Your task to perform on an android device: Search for Mexican restaurants on Maps Image 0: 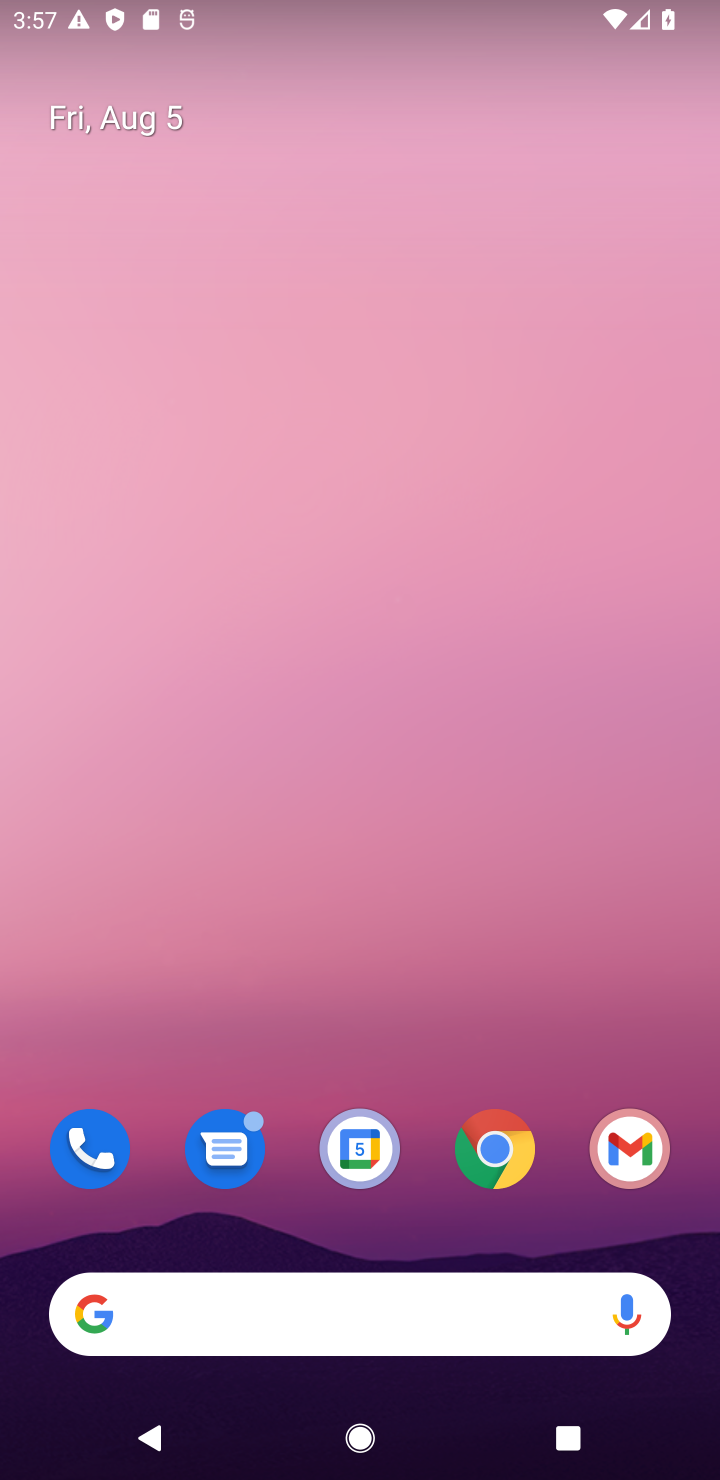
Step 0: drag from (193, 1009) to (419, 128)
Your task to perform on an android device: Search for Mexican restaurants on Maps Image 1: 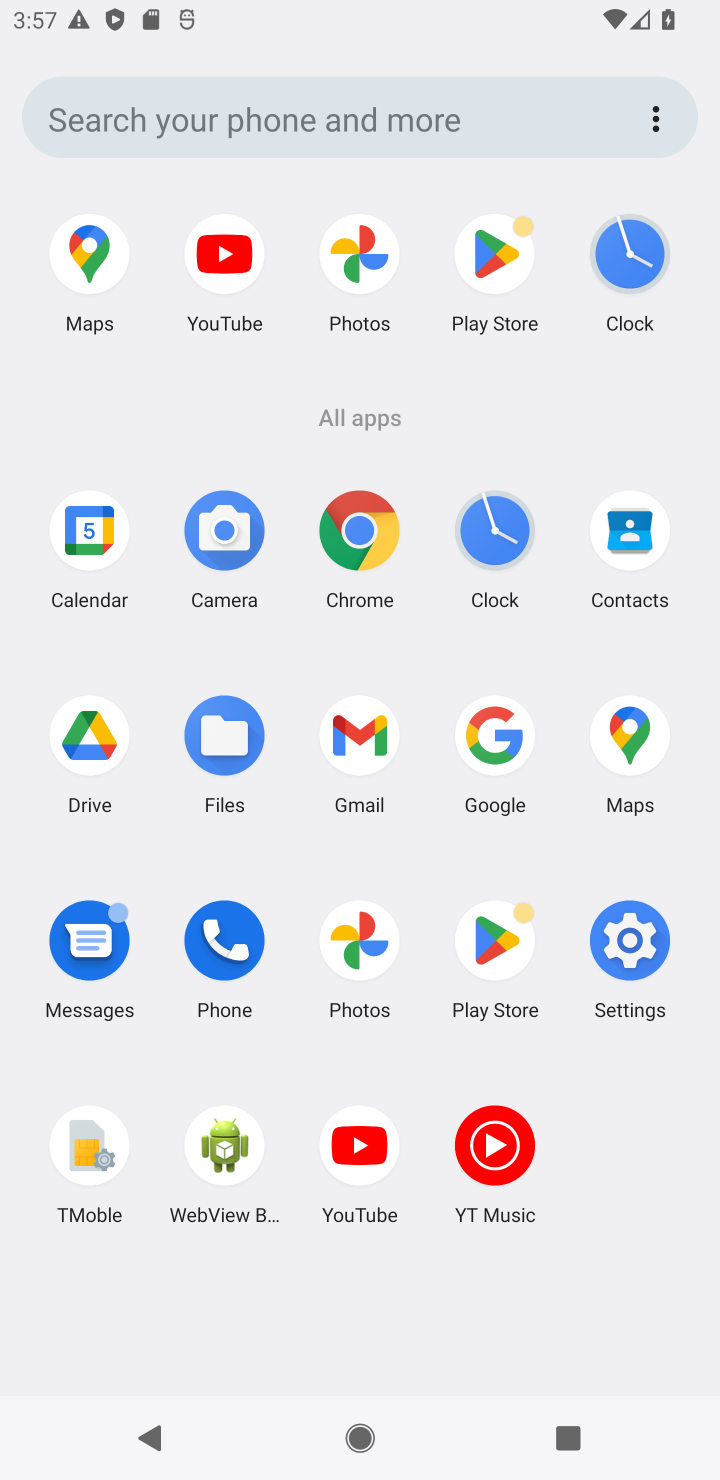
Step 1: click (623, 762)
Your task to perform on an android device: Search for Mexican restaurants on Maps Image 2: 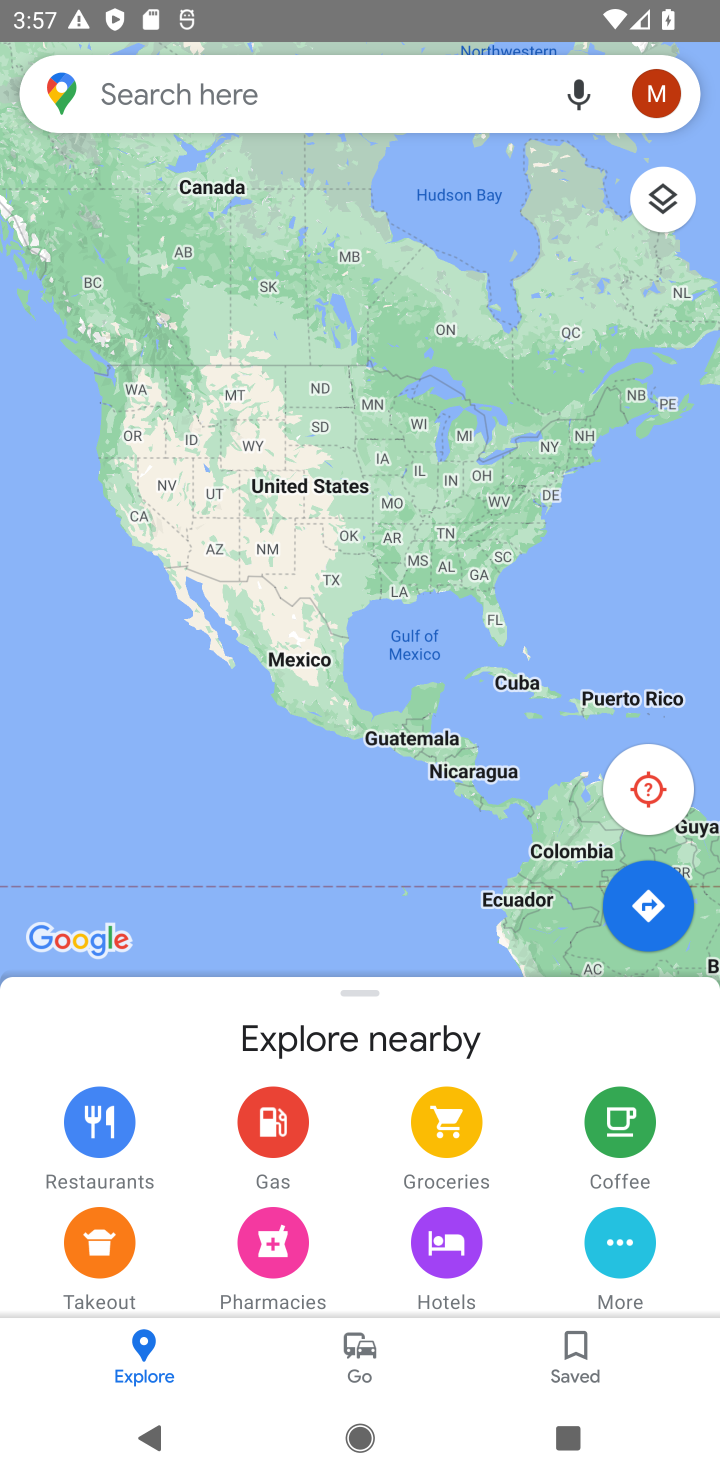
Step 2: click (253, 85)
Your task to perform on an android device: Search for Mexican restaurants on Maps Image 3: 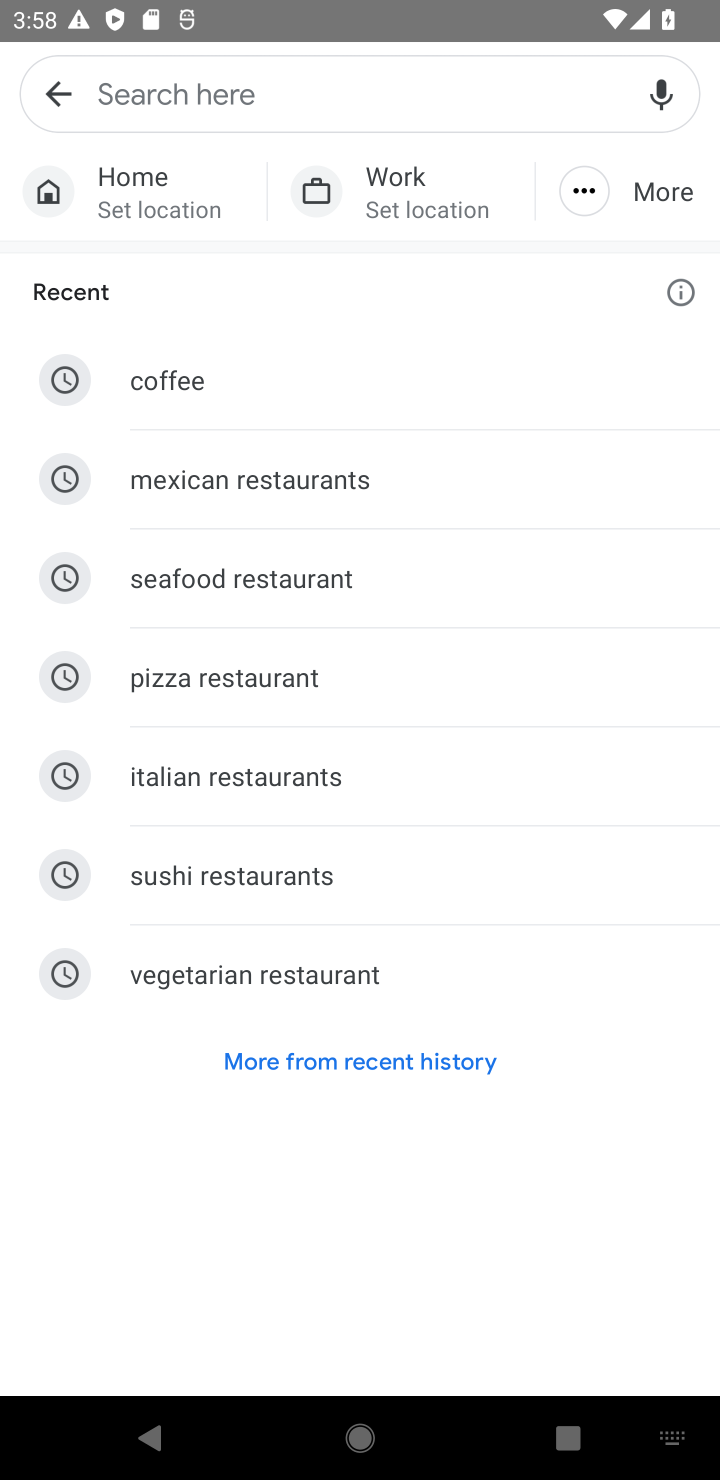
Step 3: click (417, 473)
Your task to perform on an android device: Search for Mexican restaurants on Maps Image 4: 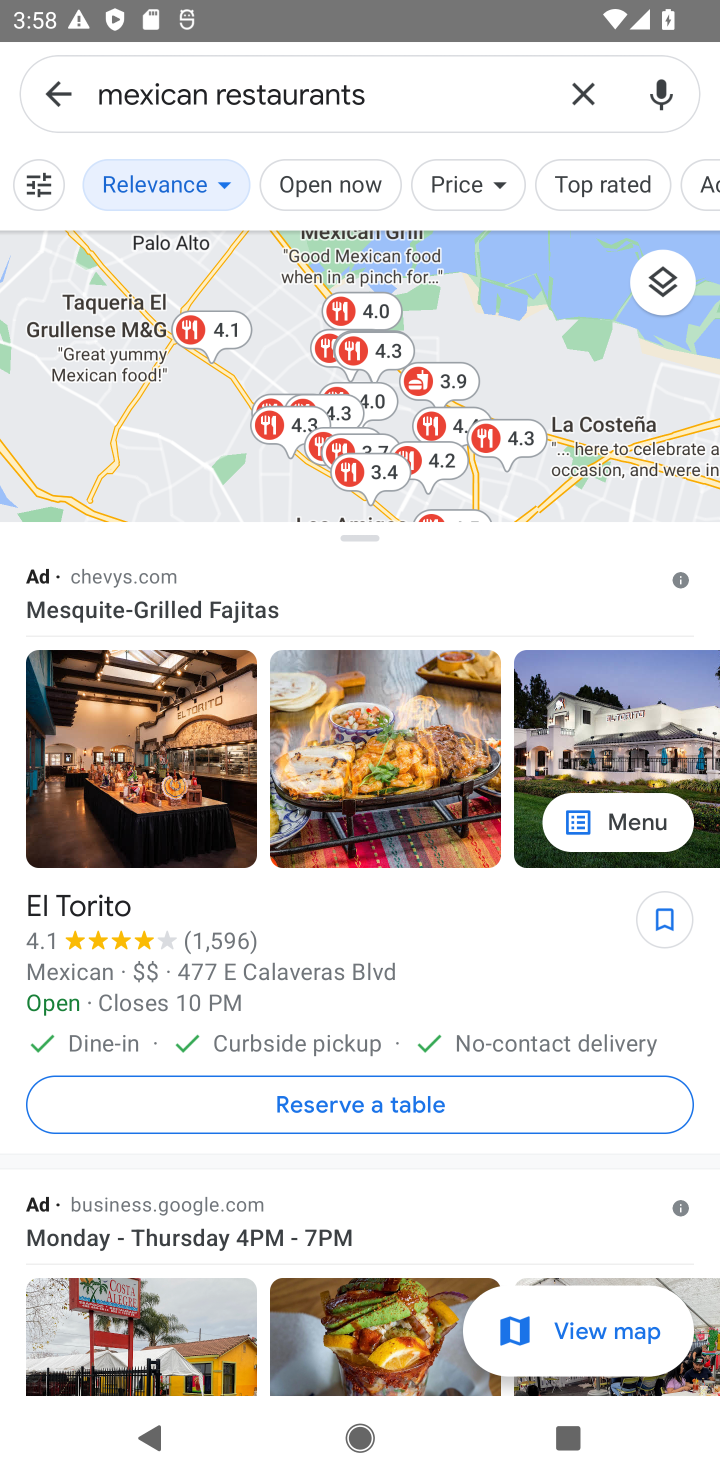
Step 4: task complete